Your task to perform on an android device: turn pop-ups on in chrome Image 0: 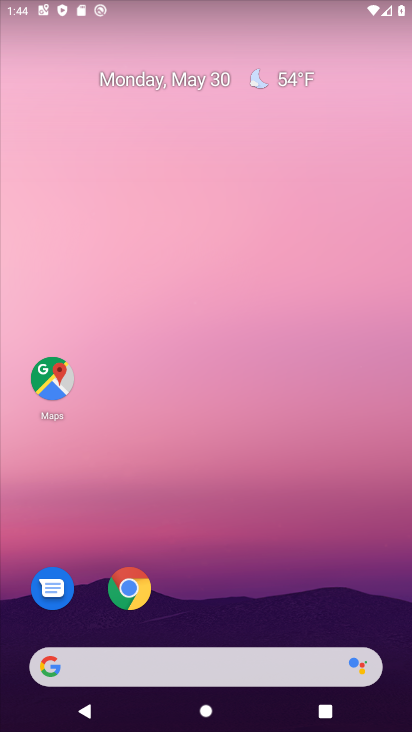
Step 0: click (129, 589)
Your task to perform on an android device: turn pop-ups on in chrome Image 1: 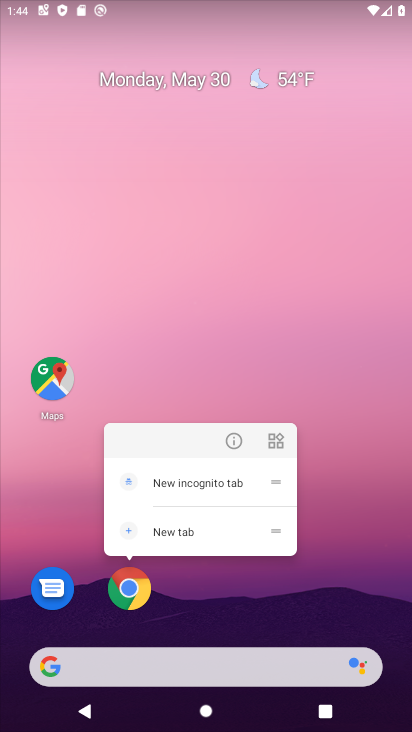
Step 1: click (129, 589)
Your task to perform on an android device: turn pop-ups on in chrome Image 2: 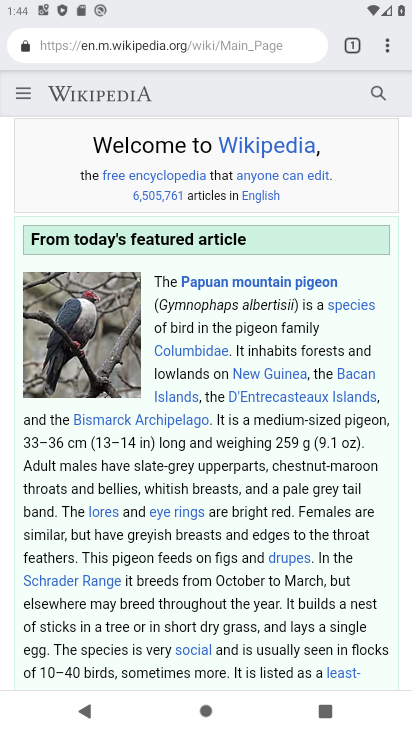
Step 2: click (384, 44)
Your task to perform on an android device: turn pop-ups on in chrome Image 3: 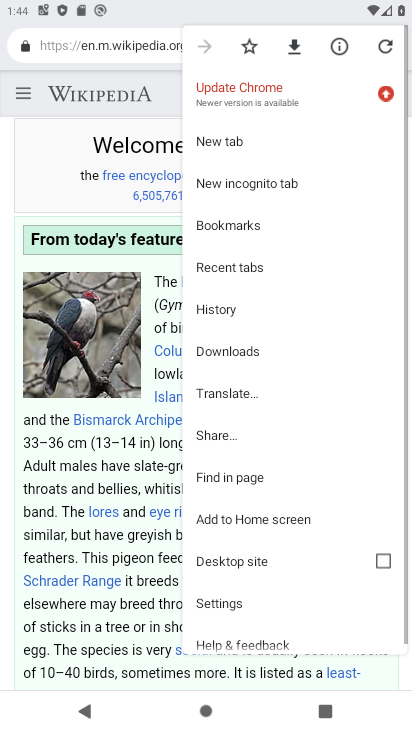
Step 3: click (258, 600)
Your task to perform on an android device: turn pop-ups on in chrome Image 4: 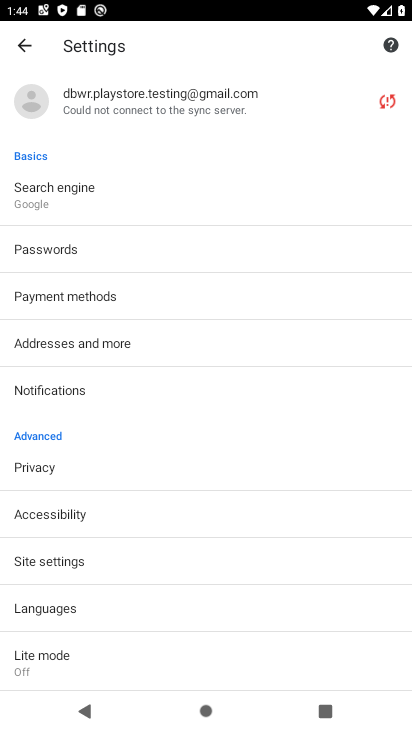
Step 4: click (40, 569)
Your task to perform on an android device: turn pop-ups on in chrome Image 5: 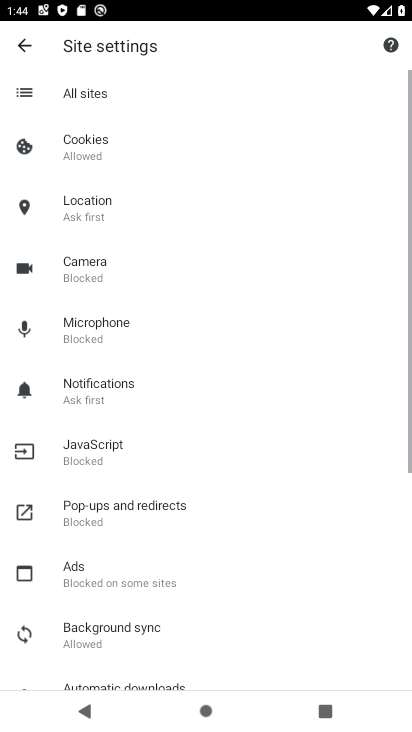
Step 5: click (105, 498)
Your task to perform on an android device: turn pop-ups on in chrome Image 6: 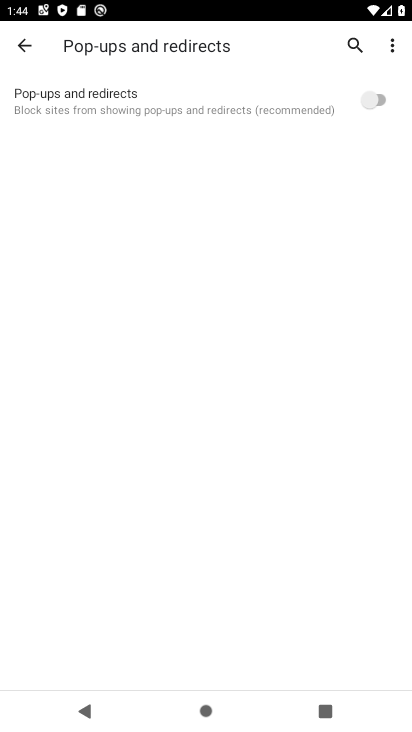
Step 6: click (371, 97)
Your task to perform on an android device: turn pop-ups on in chrome Image 7: 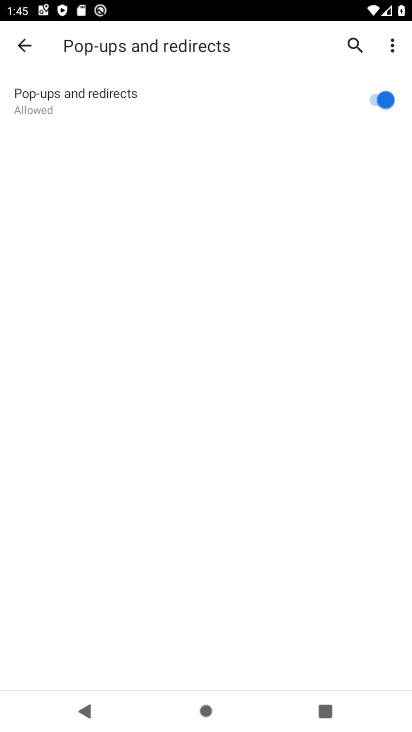
Step 7: task complete